Your task to perform on an android device: What's the weather? Image 0: 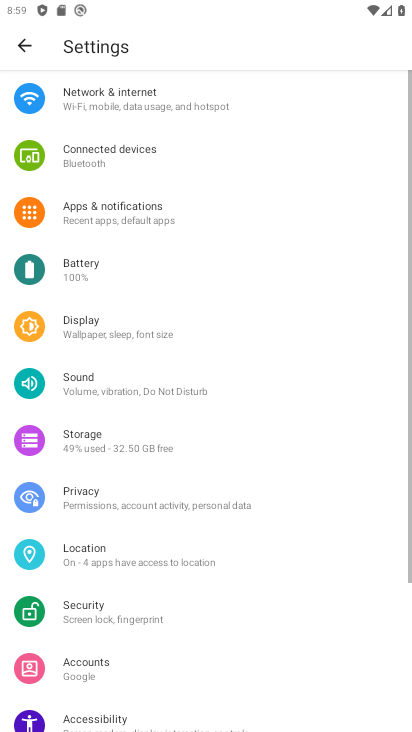
Step 0: press home button
Your task to perform on an android device: What's the weather? Image 1: 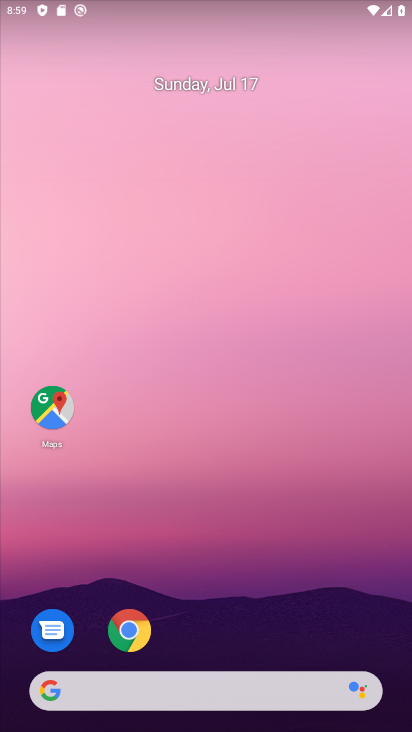
Step 1: drag from (1, 201) to (389, 202)
Your task to perform on an android device: What's the weather? Image 2: 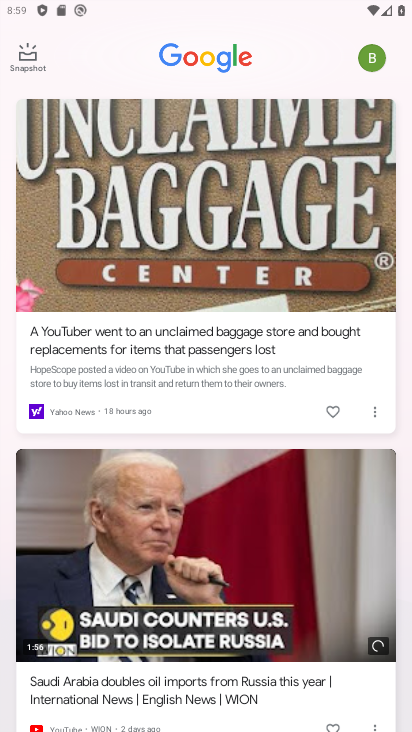
Step 2: press back button
Your task to perform on an android device: What's the weather? Image 3: 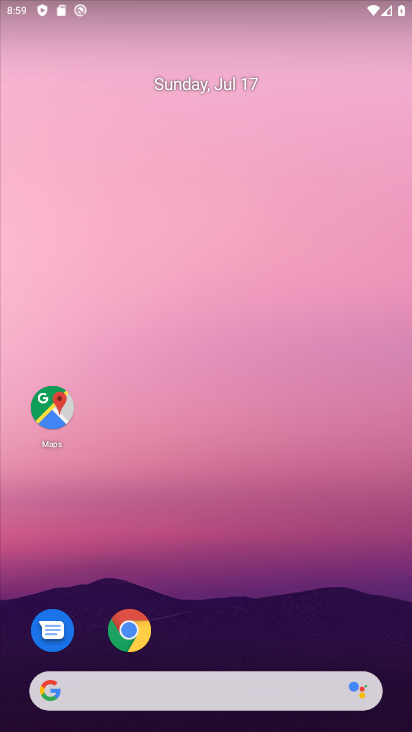
Step 3: click (171, 691)
Your task to perform on an android device: What's the weather? Image 4: 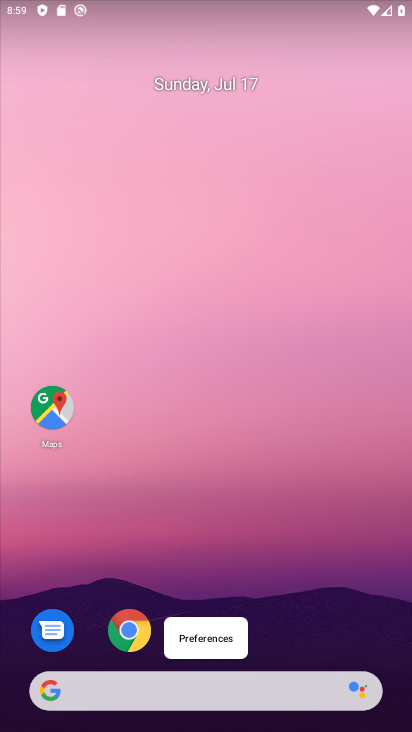
Step 4: click (217, 691)
Your task to perform on an android device: What's the weather? Image 5: 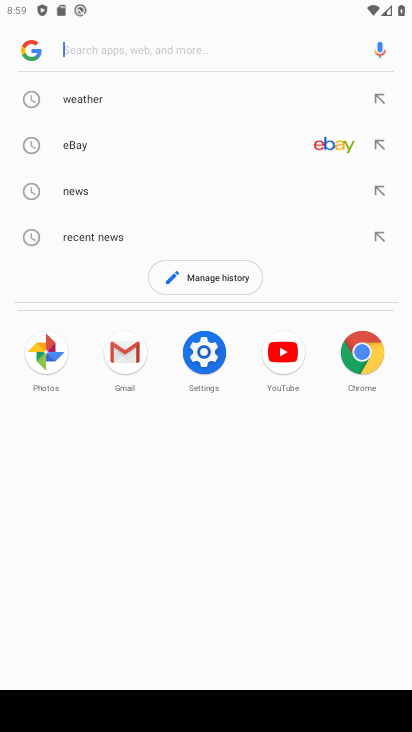
Step 5: type "What's the weather?"
Your task to perform on an android device: What's the weather? Image 6: 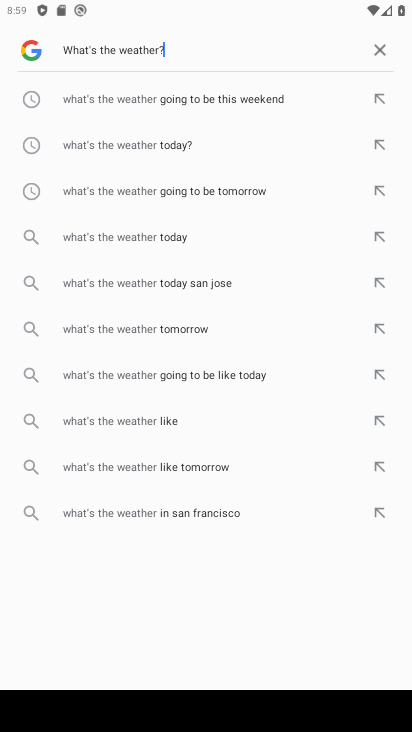
Step 6: click (200, 151)
Your task to perform on an android device: What's the weather? Image 7: 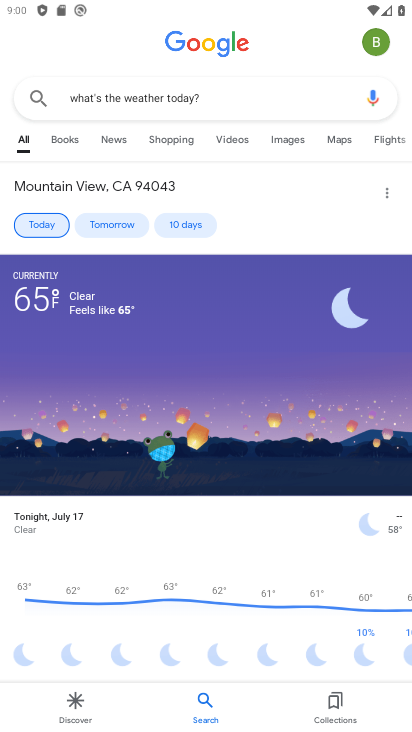
Step 7: task complete